Your task to perform on an android device: turn notification dots off Image 0: 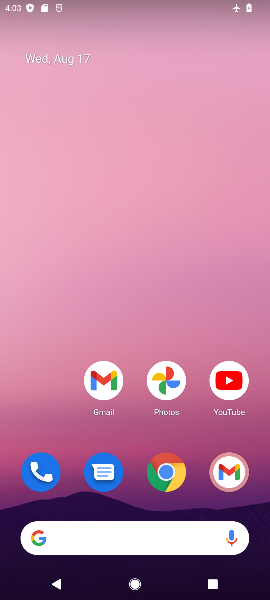
Step 0: drag from (128, 412) to (130, 88)
Your task to perform on an android device: turn notification dots off Image 1: 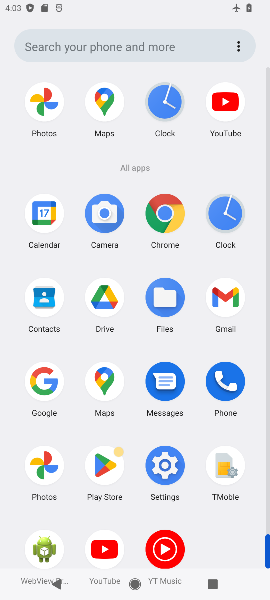
Step 1: click (157, 456)
Your task to perform on an android device: turn notification dots off Image 2: 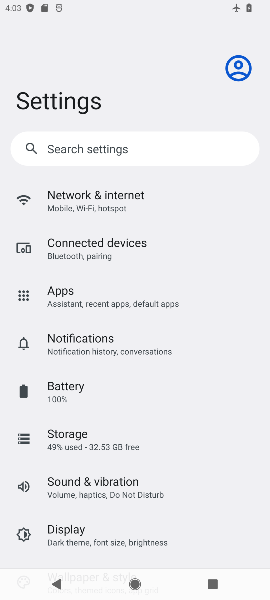
Step 2: click (92, 342)
Your task to perform on an android device: turn notification dots off Image 3: 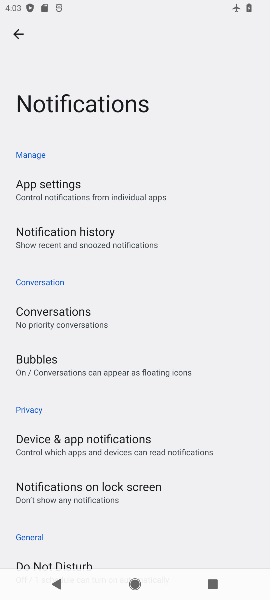
Step 3: drag from (108, 449) to (126, 350)
Your task to perform on an android device: turn notification dots off Image 4: 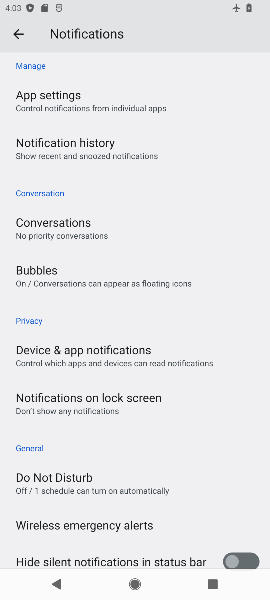
Step 4: drag from (127, 480) to (130, 262)
Your task to perform on an android device: turn notification dots off Image 5: 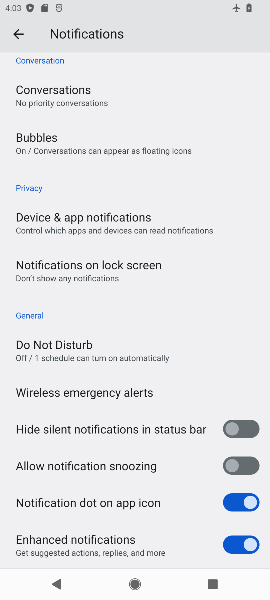
Step 5: click (231, 498)
Your task to perform on an android device: turn notification dots off Image 6: 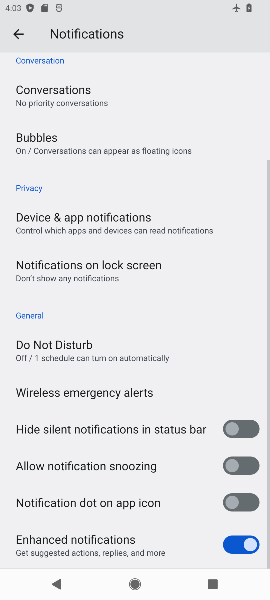
Step 6: task complete